Your task to perform on an android device: turn off notifications settings in the gmail app Image 0: 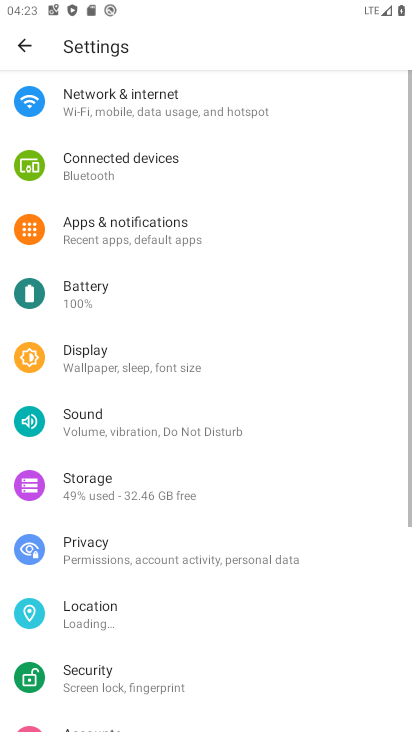
Step 0: drag from (204, 645) to (245, 278)
Your task to perform on an android device: turn off notifications settings in the gmail app Image 1: 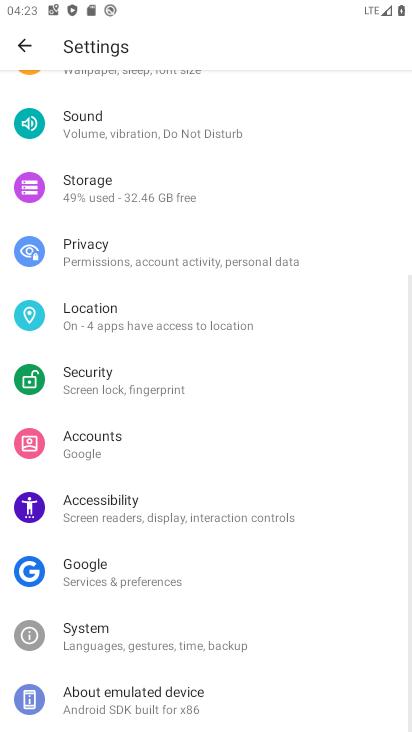
Step 1: drag from (212, 138) to (122, 659)
Your task to perform on an android device: turn off notifications settings in the gmail app Image 2: 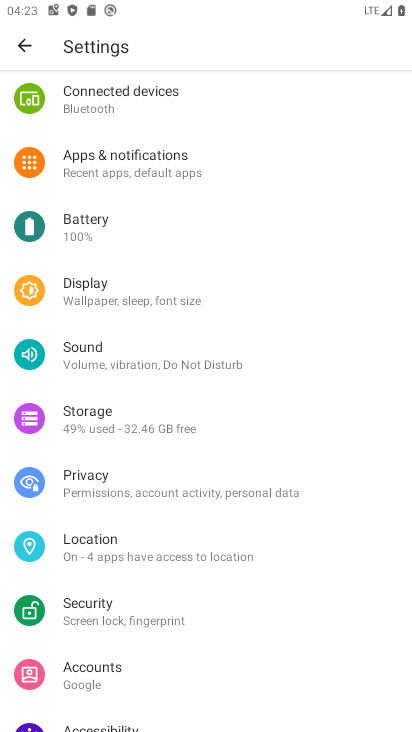
Step 2: click (141, 147)
Your task to perform on an android device: turn off notifications settings in the gmail app Image 3: 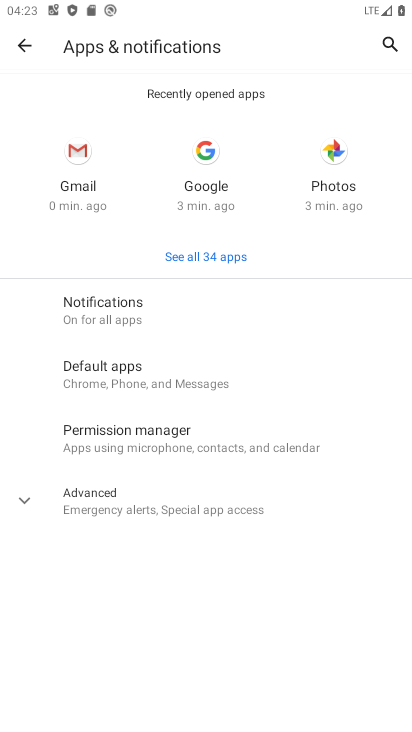
Step 3: click (73, 156)
Your task to perform on an android device: turn off notifications settings in the gmail app Image 4: 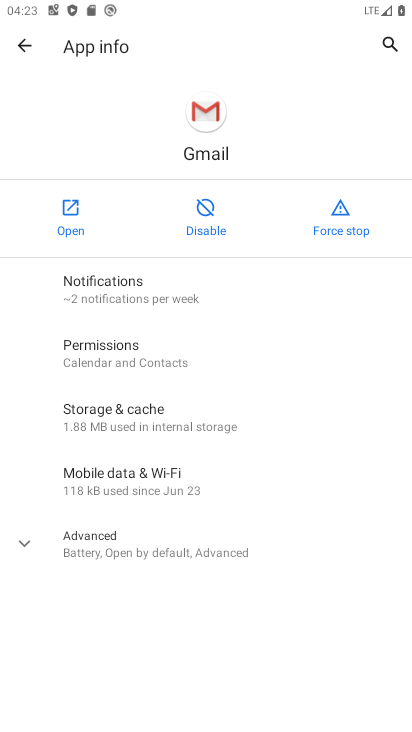
Step 4: click (244, 294)
Your task to perform on an android device: turn off notifications settings in the gmail app Image 5: 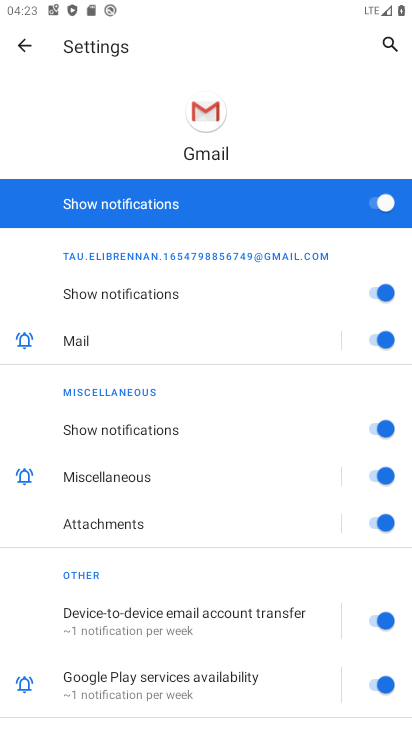
Step 5: click (382, 205)
Your task to perform on an android device: turn off notifications settings in the gmail app Image 6: 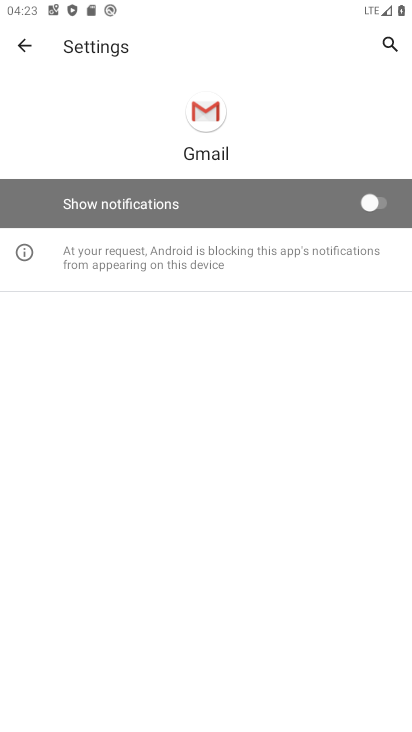
Step 6: task complete